Your task to perform on an android device: turn pop-ups on in chrome Image 0: 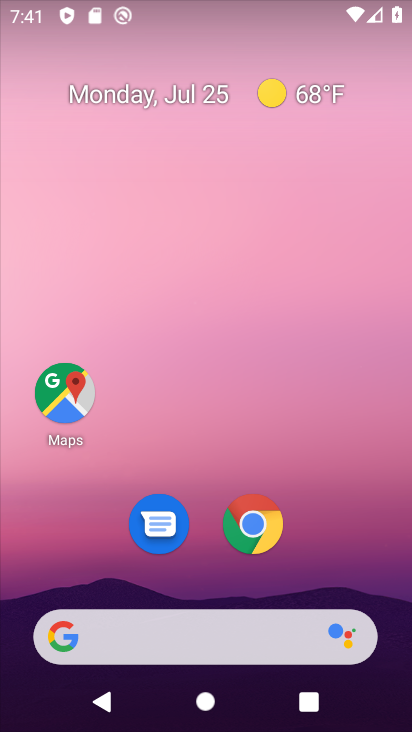
Step 0: click (263, 535)
Your task to perform on an android device: turn pop-ups on in chrome Image 1: 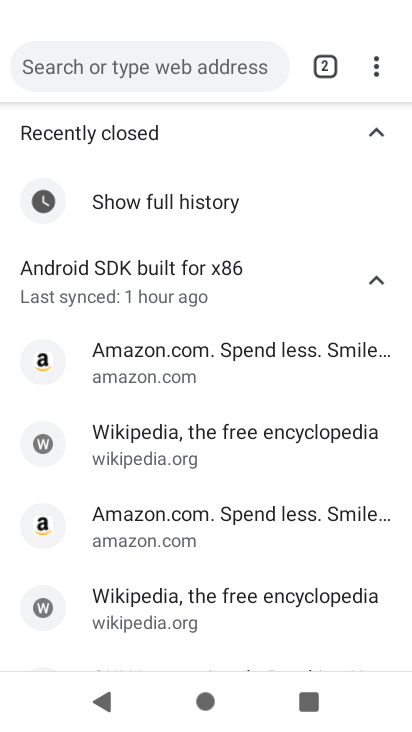
Step 1: click (378, 72)
Your task to perform on an android device: turn pop-ups on in chrome Image 2: 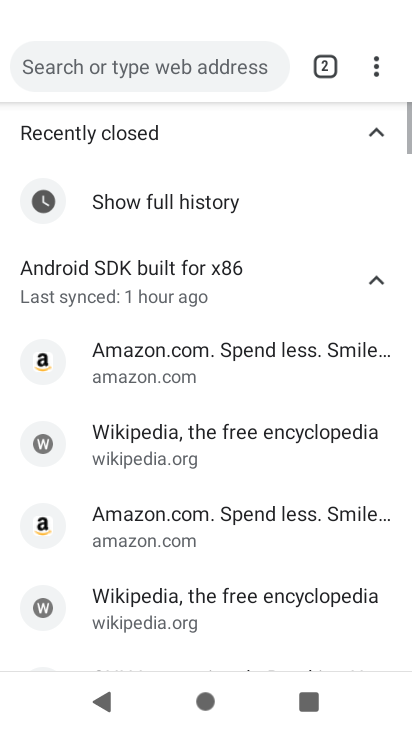
Step 2: click (378, 72)
Your task to perform on an android device: turn pop-ups on in chrome Image 3: 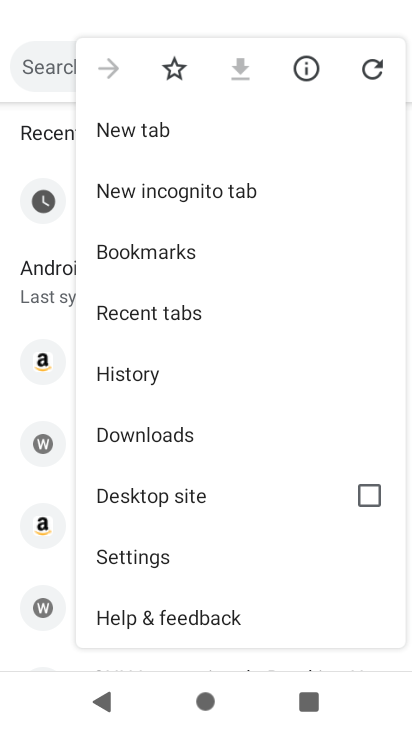
Step 3: click (159, 549)
Your task to perform on an android device: turn pop-ups on in chrome Image 4: 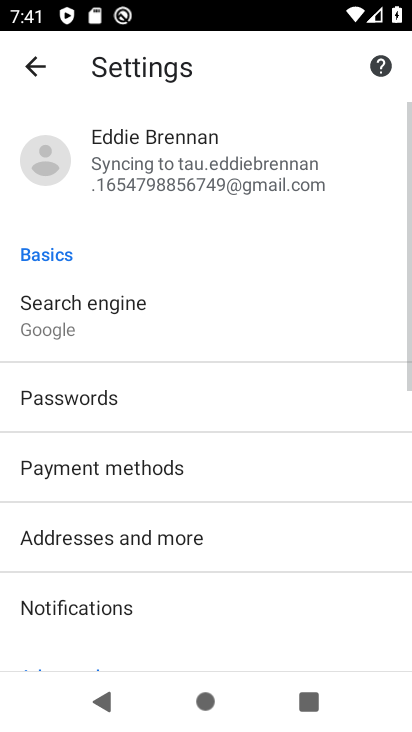
Step 4: drag from (230, 564) to (277, 40)
Your task to perform on an android device: turn pop-ups on in chrome Image 5: 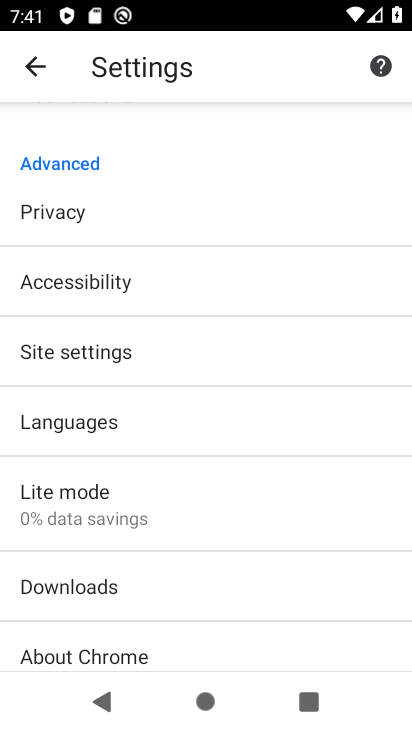
Step 5: drag from (220, 589) to (266, 299)
Your task to perform on an android device: turn pop-ups on in chrome Image 6: 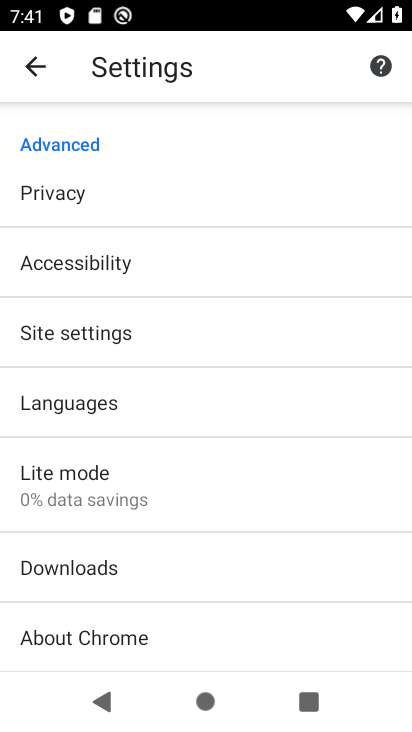
Step 6: click (125, 334)
Your task to perform on an android device: turn pop-ups on in chrome Image 7: 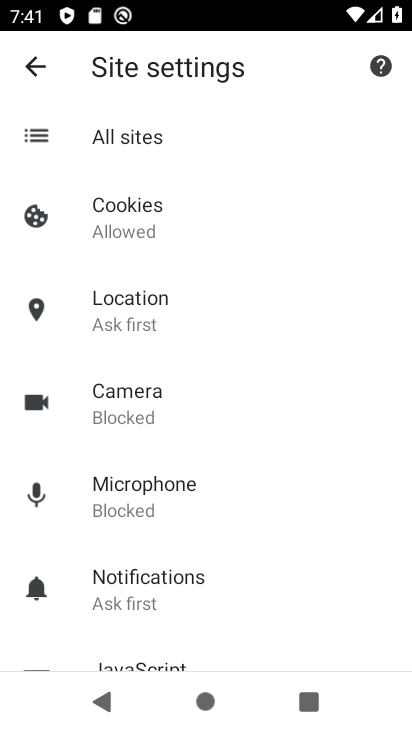
Step 7: drag from (216, 530) to (263, 244)
Your task to perform on an android device: turn pop-ups on in chrome Image 8: 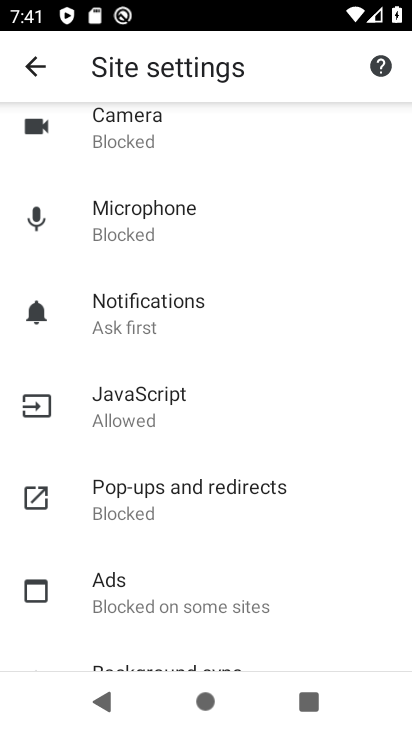
Step 8: click (222, 503)
Your task to perform on an android device: turn pop-ups on in chrome Image 9: 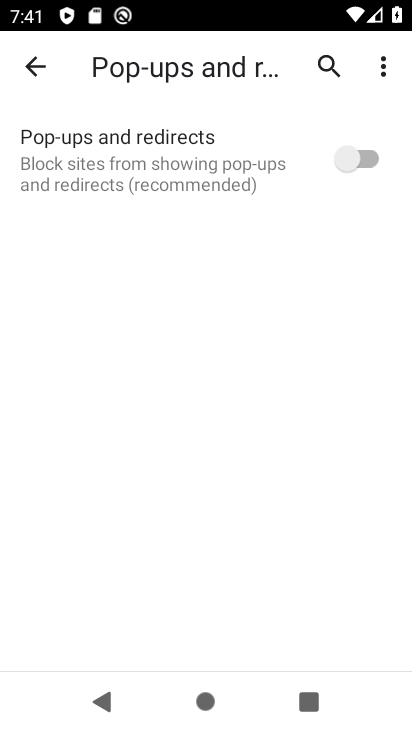
Step 9: click (342, 156)
Your task to perform on an android device: turn pop-ups on in chrome Image 10: 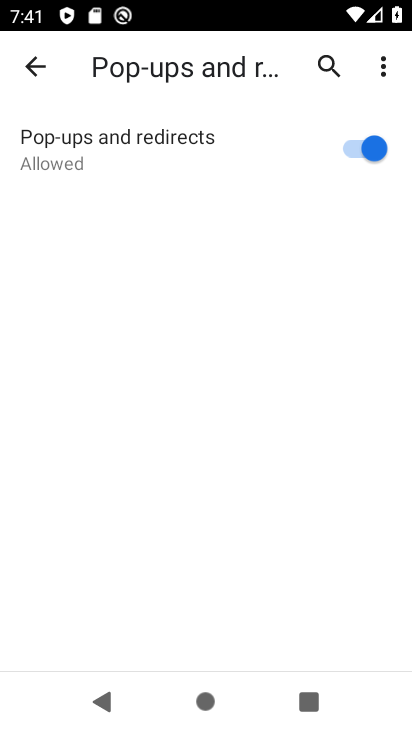
Step 10: task complete